Your task to perform on an android device: change the clock display to digital Image 0: 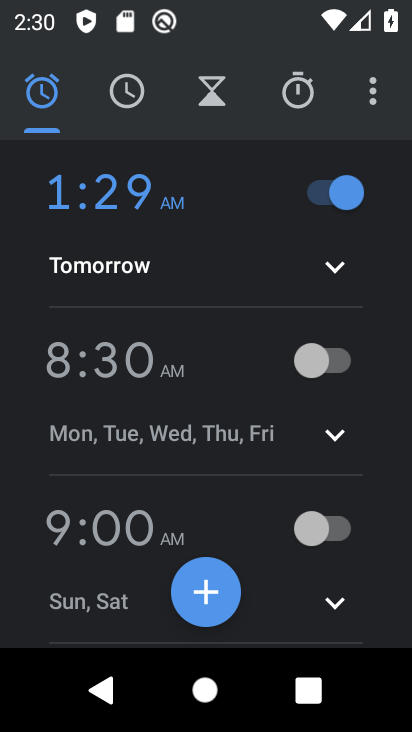
Step 0: click (371, 91)
Your task to perform on an android device: change the clock display to digital Image 1: 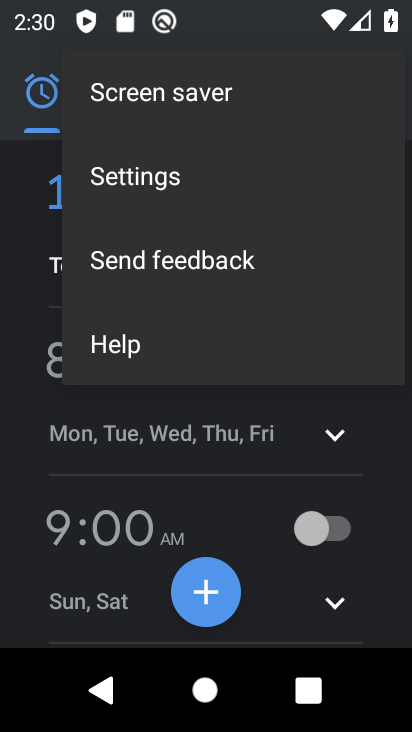
Step 1: click (169, 181)
Your task to perform on an android device: change the clock display to digital Image 2: 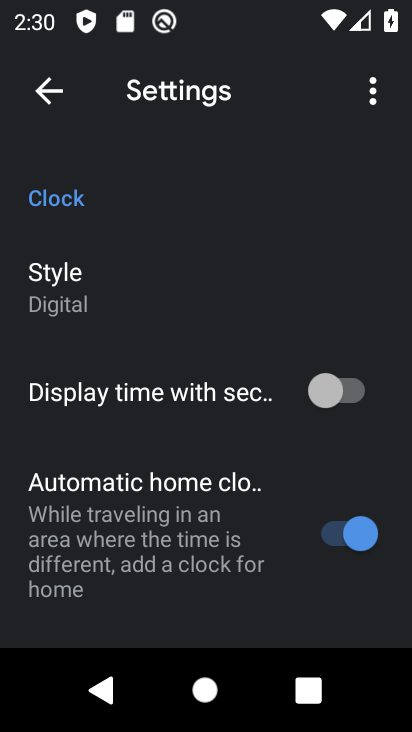
Step 2: drag from (184, 599) to (190, 533)
Your task to perform on an android device: change the clock display to digital Image 3: 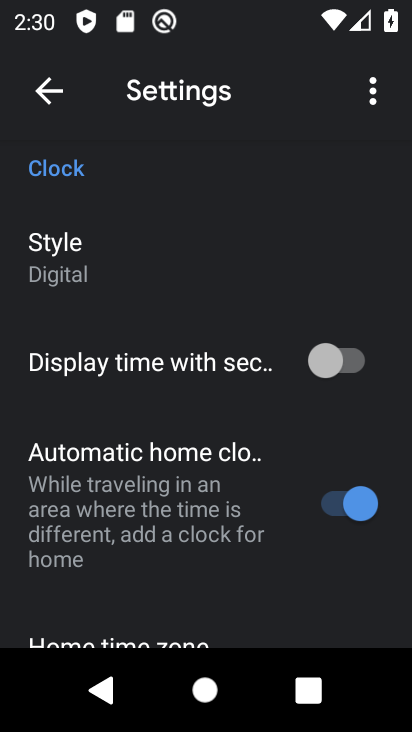
Step 3: click (99, 245)
Your task to perform on an android device: change the clock display to digital Image 4: 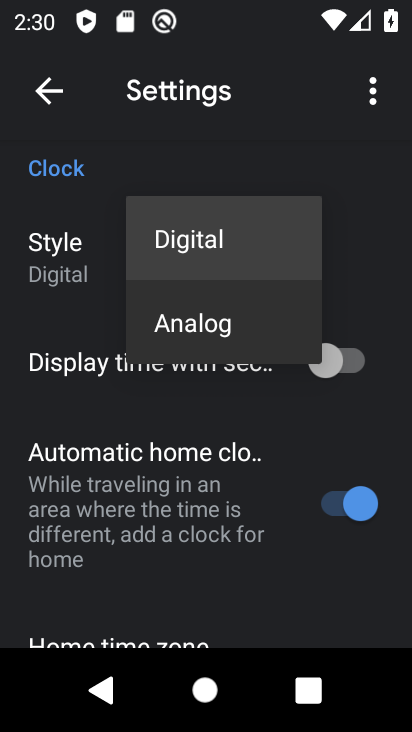
Step 4: click (186, 245)
Your task to perform on an android device: change the clock display to digital Image 5: 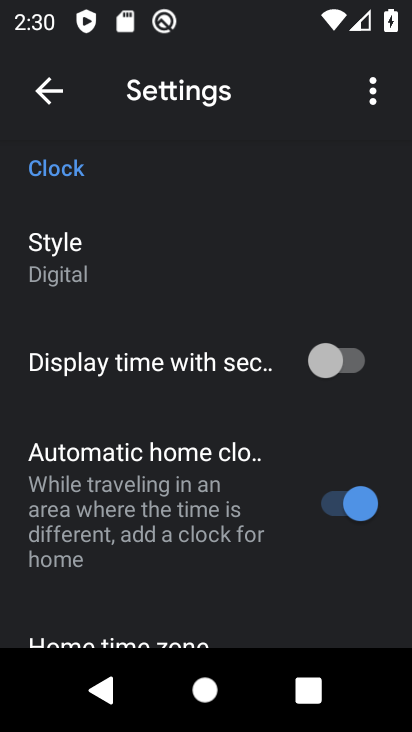
Step 5: task complete